Your task to perform on an android device: Open internet settings Image 0: 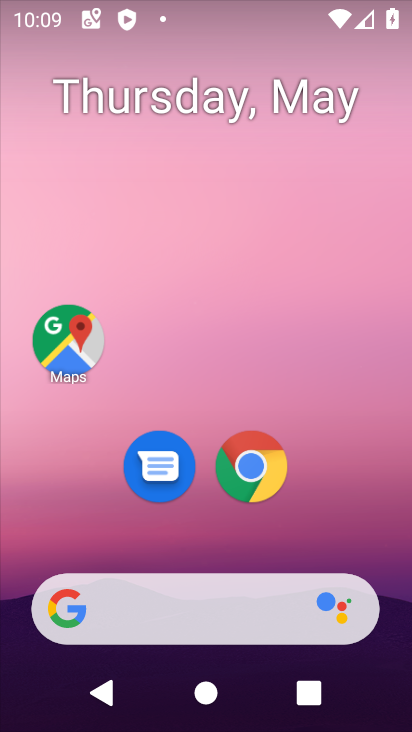
Step 0: drag from (313, 529) to (297, 193)
Your task to perform on an android device: Open internet settings Image 1: 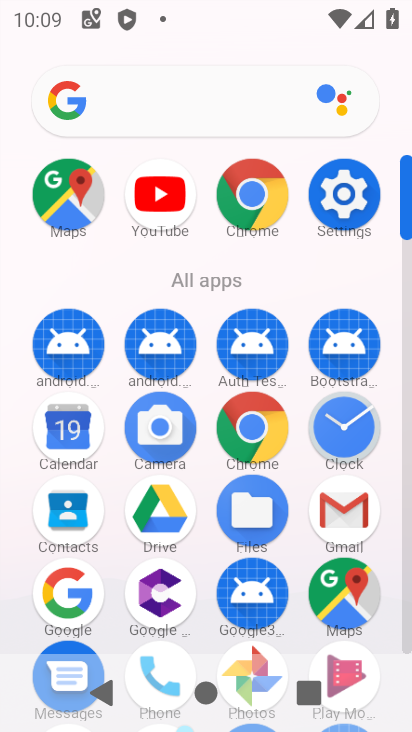
Step 1: click (339, 198)
Your task to perform on an android device: Open internet settings Image 2: 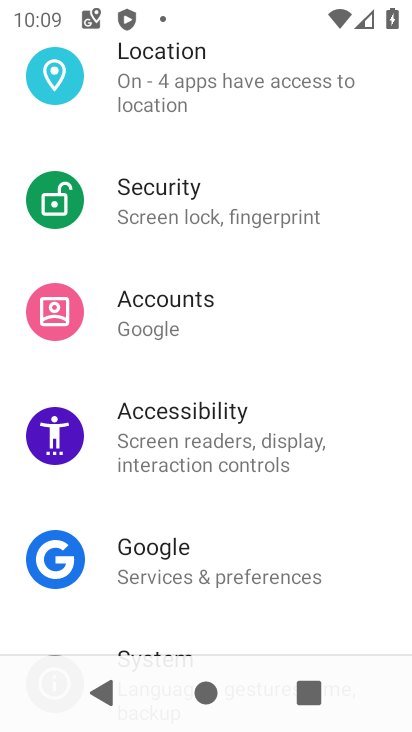
Step 2: drag from (163, 168) to (171, 383)
Your task to perform on an android device: Open internet settings Image 3: 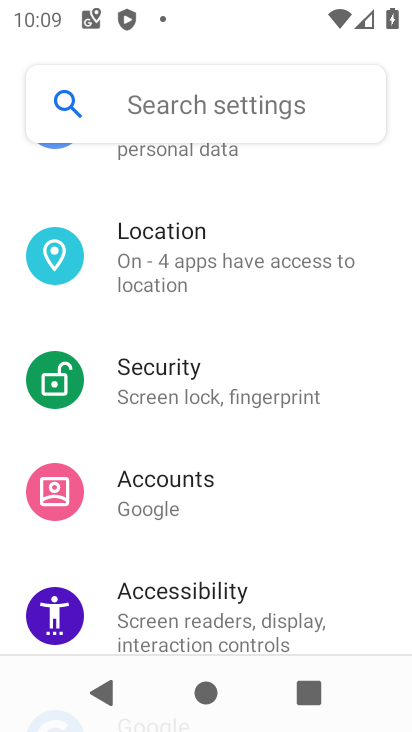
Step 3: click (172, 390)
Your task to perform on an android device: Open internet settings Image 4: 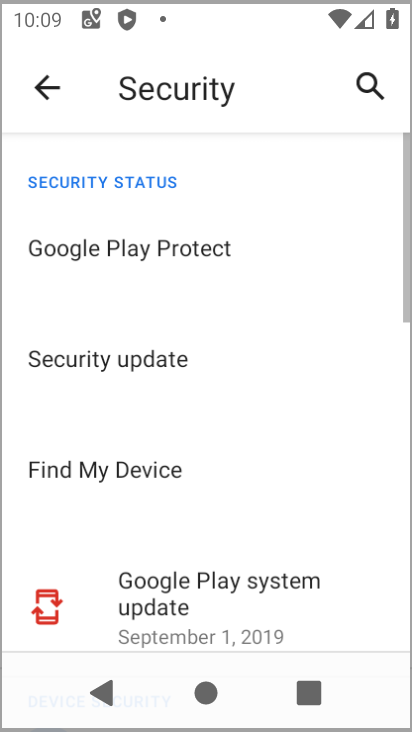
Step 4: drag from (233, 145) to (197, 476)
Your task to perform on an android device: Open internet settings Image 5: 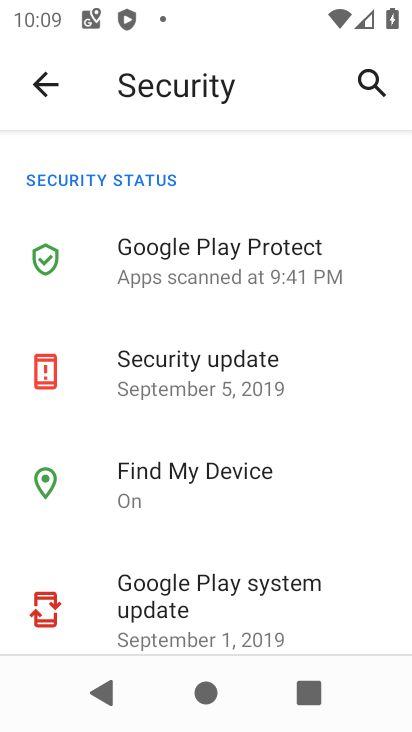
Step 5: click (38, 82)
Your task to perform on an android device: Open internet settings Image 6: 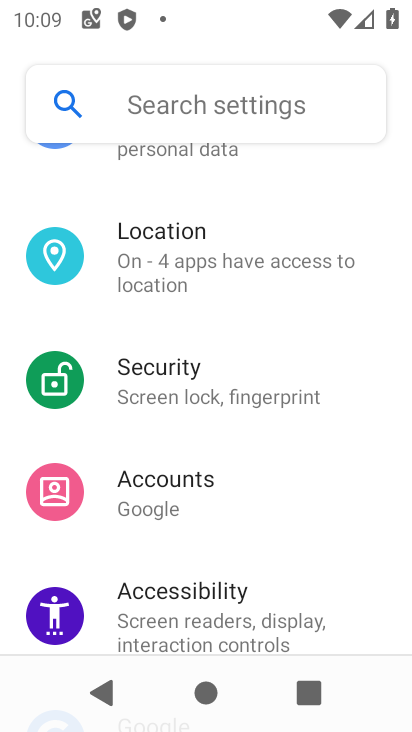
Step 6: drag from (253, 175) to (285, 385)
Your task to perform on an android device: Open internet settings Image 7: 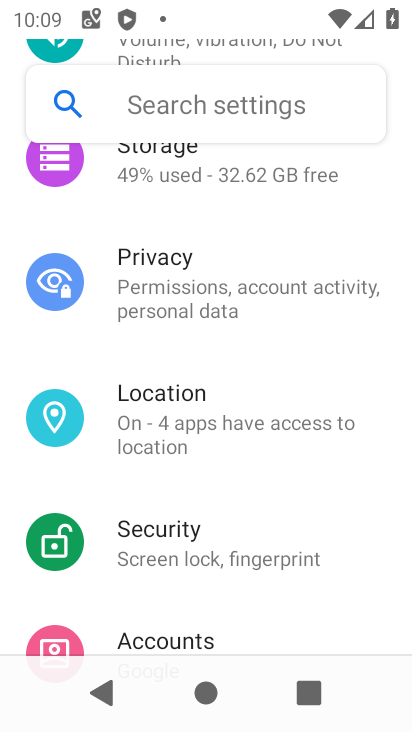
Step 7: drag from (210, 186) to (227, 517)
Your task to perform on an android device: Open internet settings Image 8: 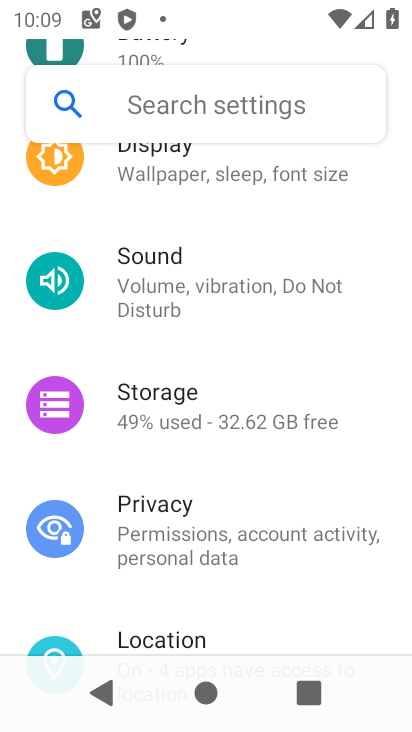
Step 8: drag from (199, 208) to (247, 552)
Your task to perform on an android device: Open internet settings Image 9: 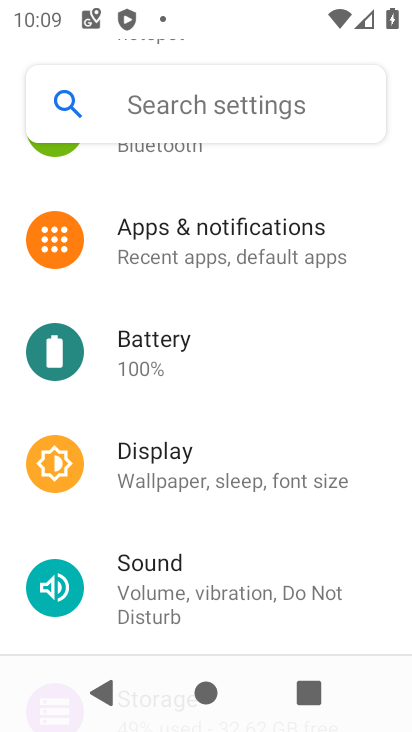
Step 9: click (224, 236)
Your task to perform on an android device: Open internet settings Image 10: 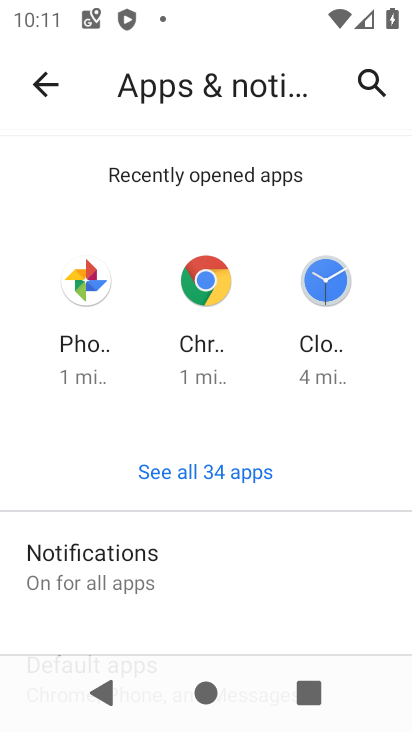
Step 10: task complete